Your task to perform on an android device: Go to ESPN.com Image 0: 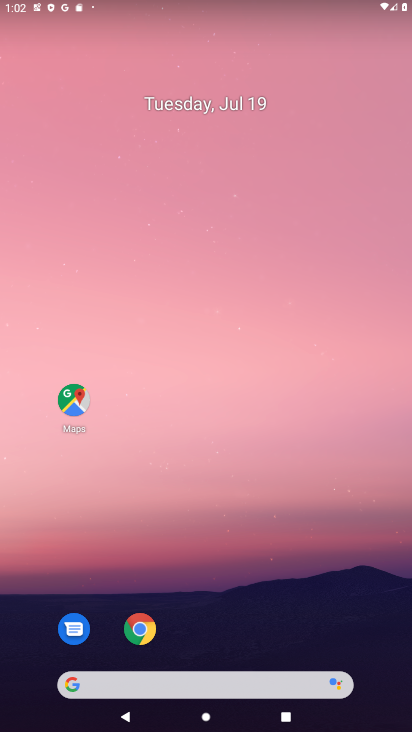
Step 0: click (143, 627)
Your task to perform on an android device: Go to ESPN.com Image 1: 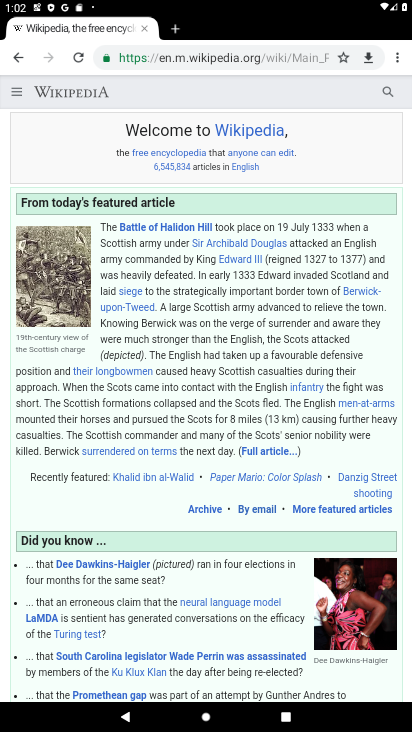
Step 1: click (173, 56)
Your task to perform on an android device: Go to ESPN.com Image 2: 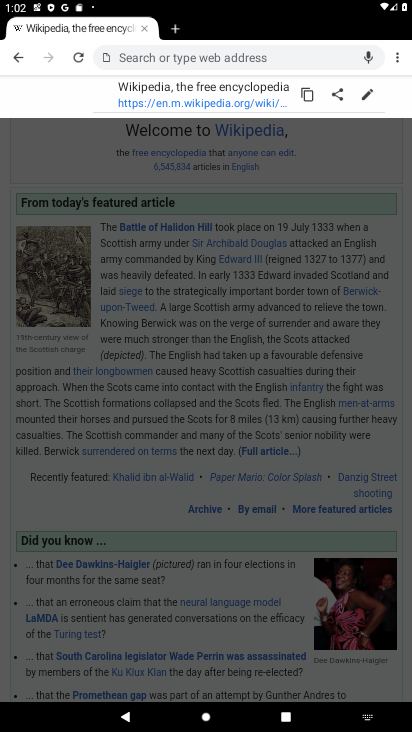
Step 2: type "ESPN.com"
Your task to perform on an android device: Go to ESPN.com Image 3: 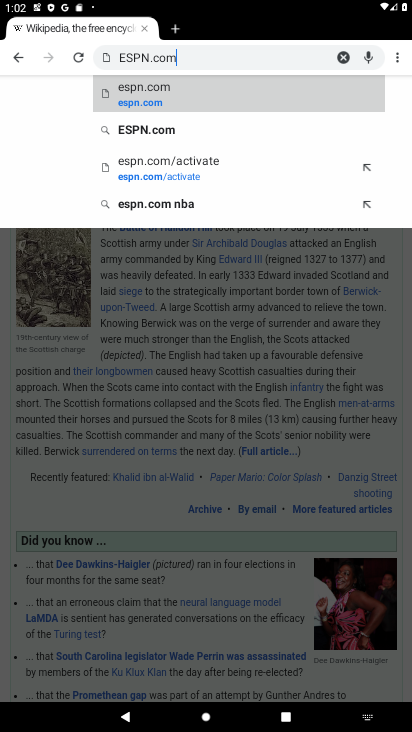
Step 3: click (180, 96)
Your task to perform on an android device: Go to ESPN.com Image 4: 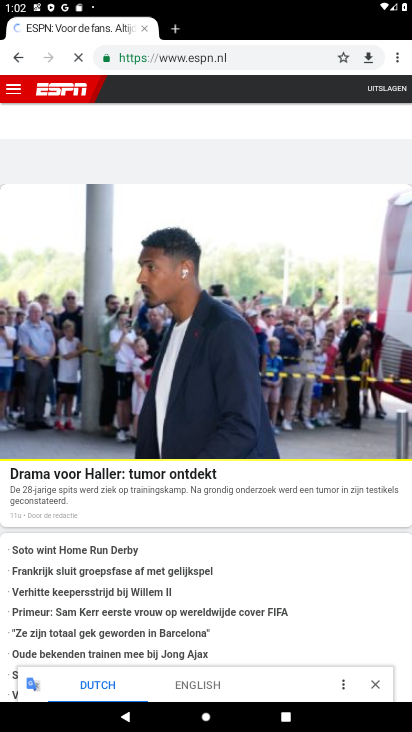
Step 4: task complete